Your task to perform on an android device: Open Google Maps Image 0: 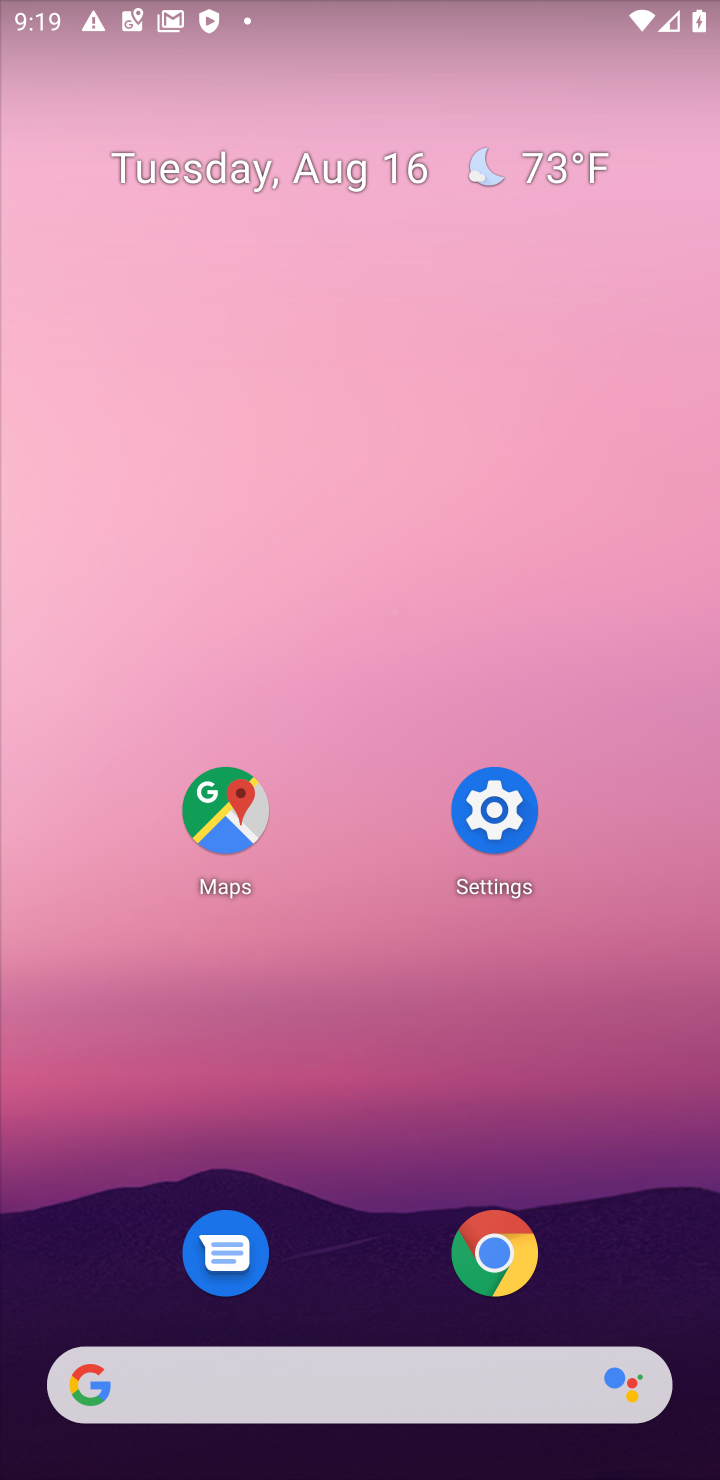
Step 0: click (228, 806)
Your task to perform on an android device: Open Google Maps Image 1: 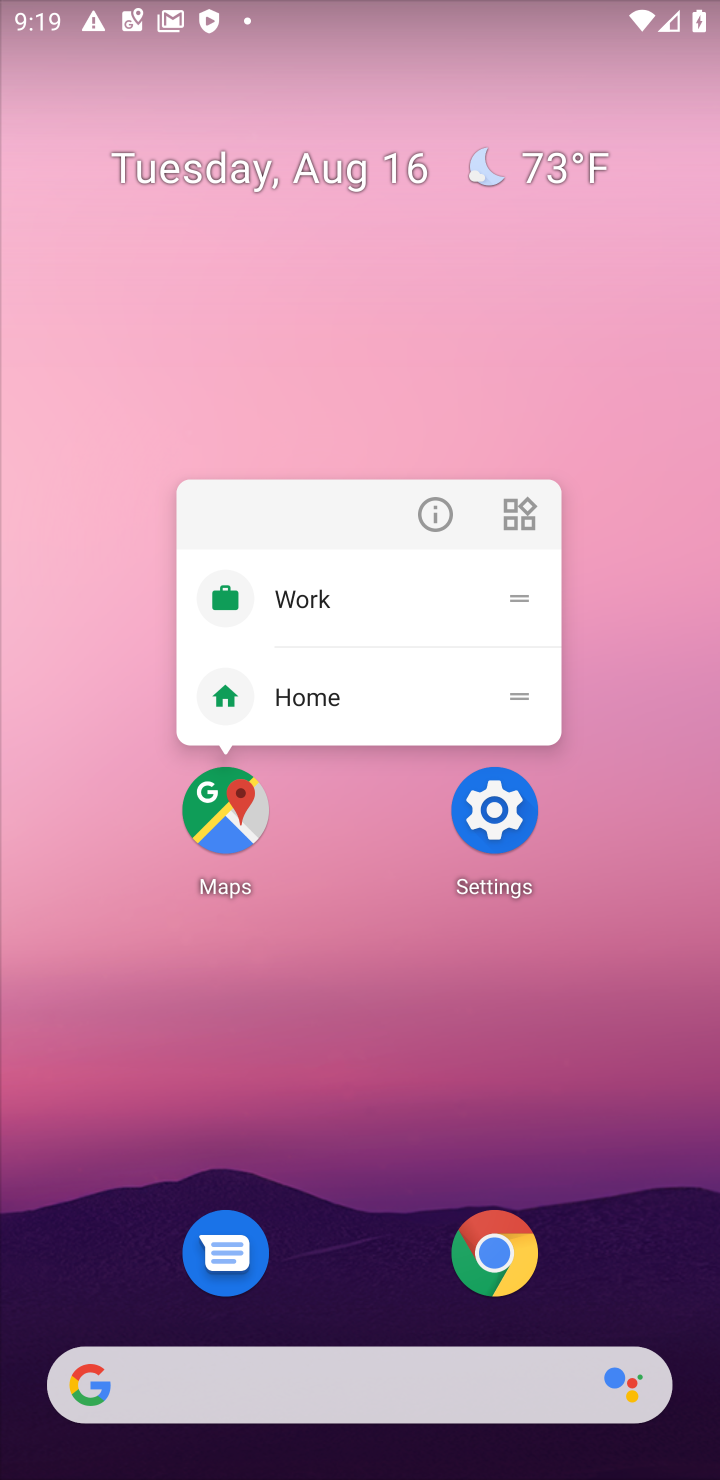
Step 1: click (226, 813)
Your task to perform on an android device: Open Google Maps Image 2: 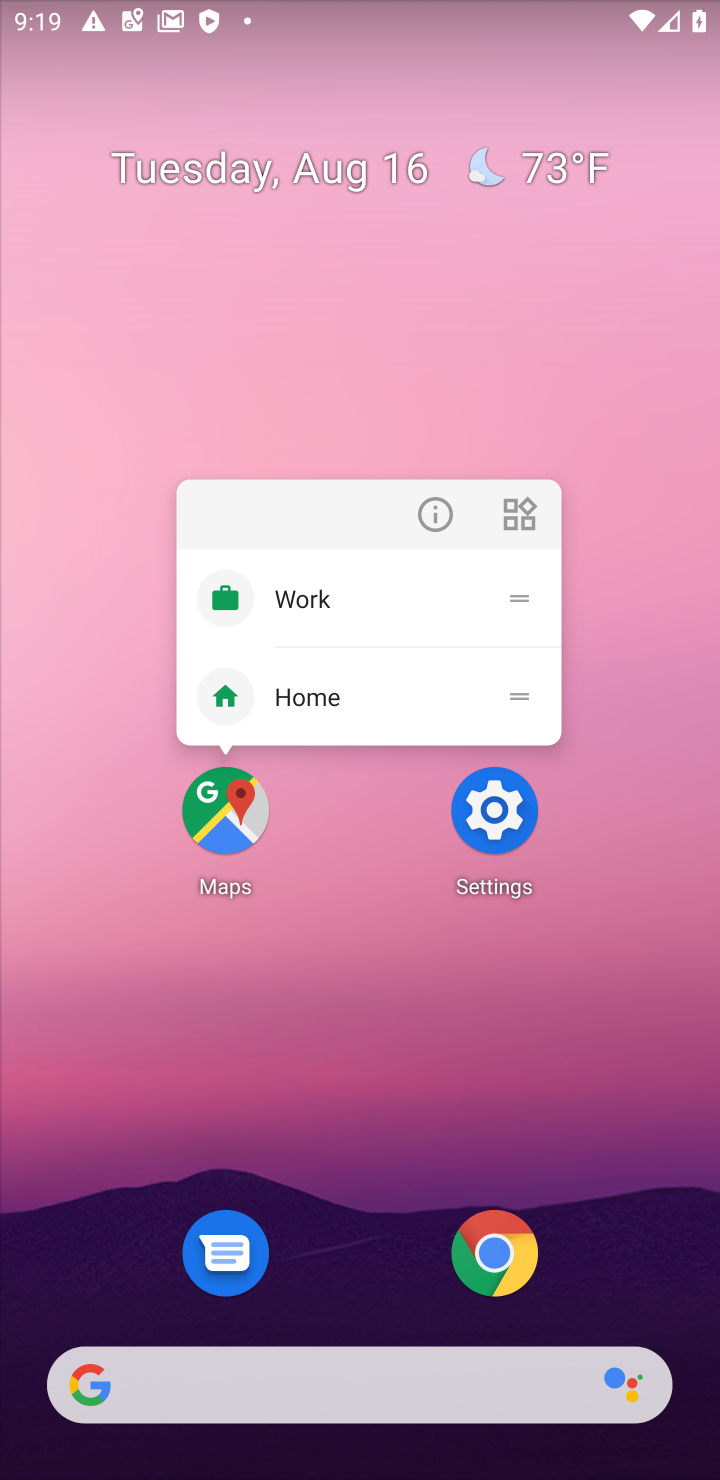
Step 2: click (226, 824)
Your task to perform on an android device: Open Google Maps Image 3: 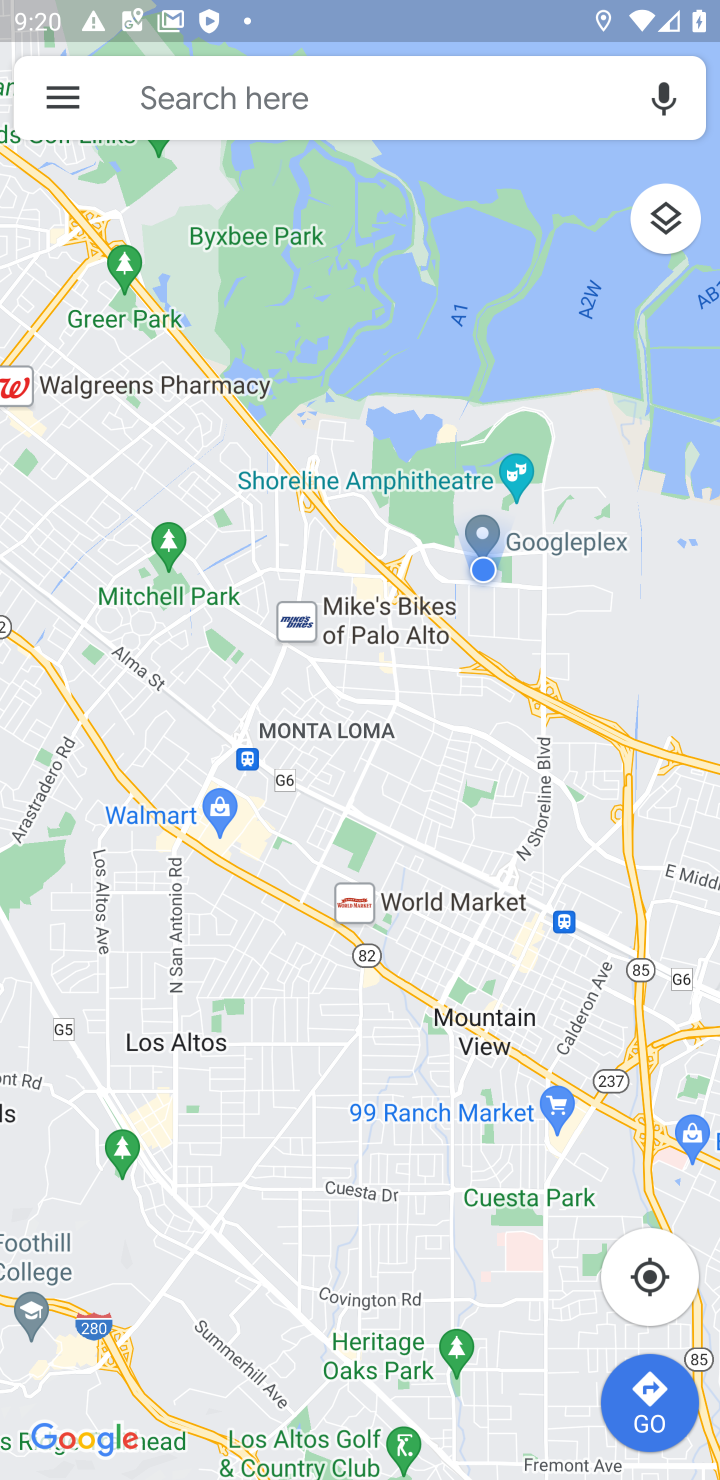
Step 3: task complete